Your task to perform on an android device: Show the shopping cart on target. Search for logitech g pro on target, select the first entry, and add it to the cart. Image 0: 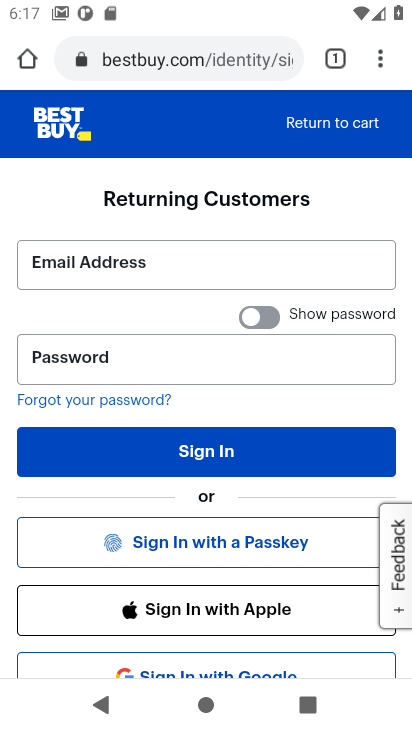
Step 0: click (150, 64)
Your task to perform on an android device: Show the shopping cart on target. Search for logitech g pro on target, select the first entry, and add it to the cart. Image 1: 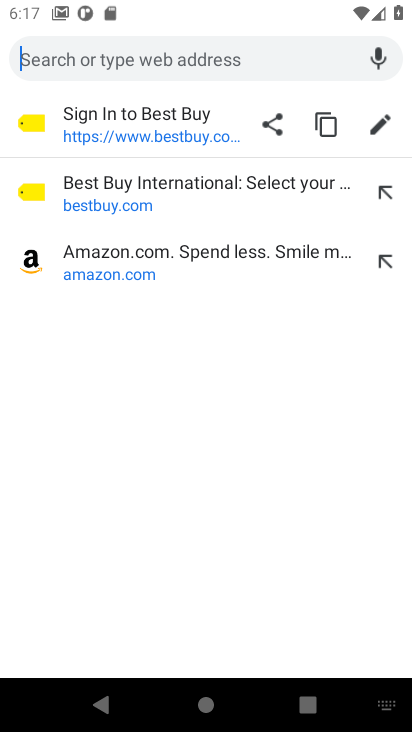
Step 1: type "target.com"
Your task to perform on an android device: Show the shopping cart on target. Search for logitech g pro on target, select the first entry, and add it to the cart. Image 2: 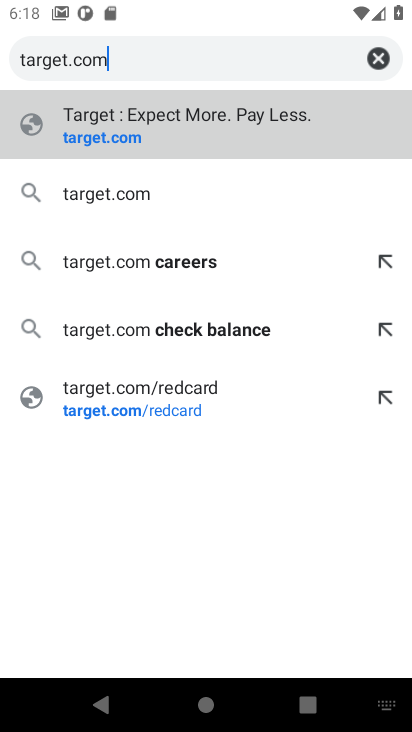
Step 2: click (93, 141)
Your task to perform on an android device: Show the shopping cart on target. Search for logitech g pro on target, select the first entry, and add it to the cart. Image 3: 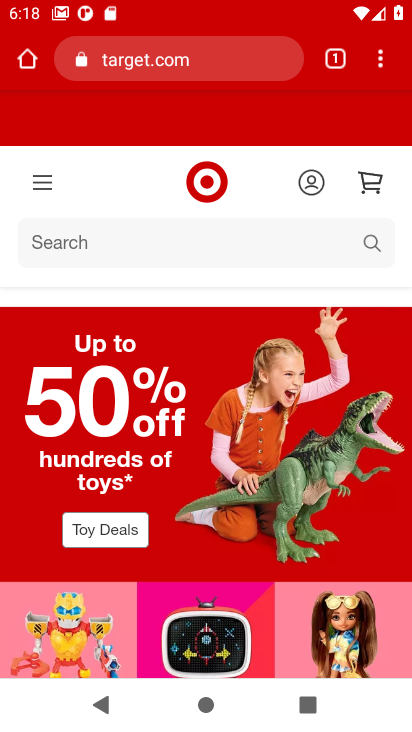
Step 3: click (368, 182)
Your task to perform on an android device: Show the shopping cart on target. Search for logitech g pro on target, select the first entry, and add it to the cart. Image 4: 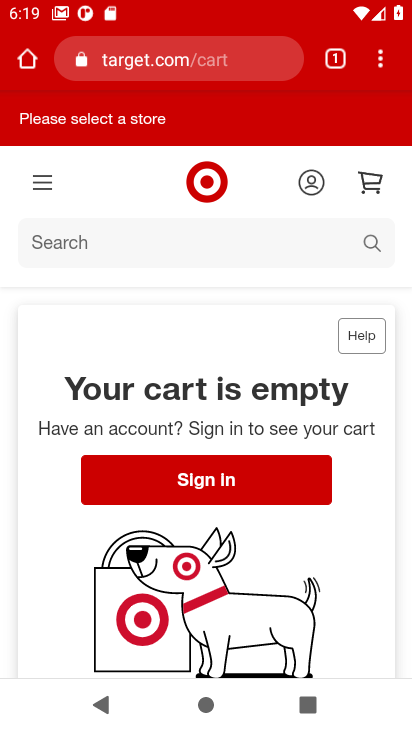
Step 4: click (79, 241)
Your task to perform on an android device: Show the shopping cart on target. Search for logitech g pro on target, select the first entry, and add it to the cart. Image 5: 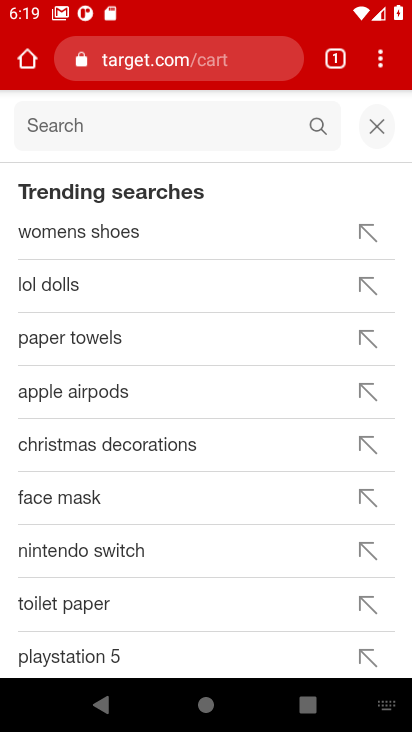
Step 5: type "logitech g pro"
Your task to perform on an android device: Show the shopping cart on target. Search for logitech g pro on target, select the first entry, and add it to the cart. Image 6: 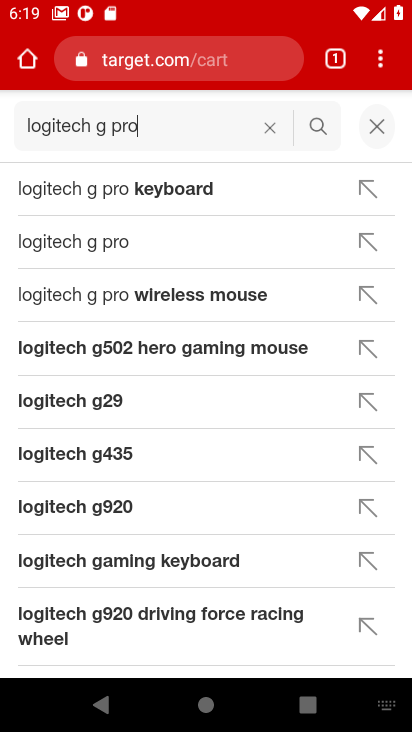
Step 6: click (102, 247)
Your task to perform on an android device: Show the shopping cart on target. Search for logitech g pro on target, select the first entry, and add it to the cart. Image 7: 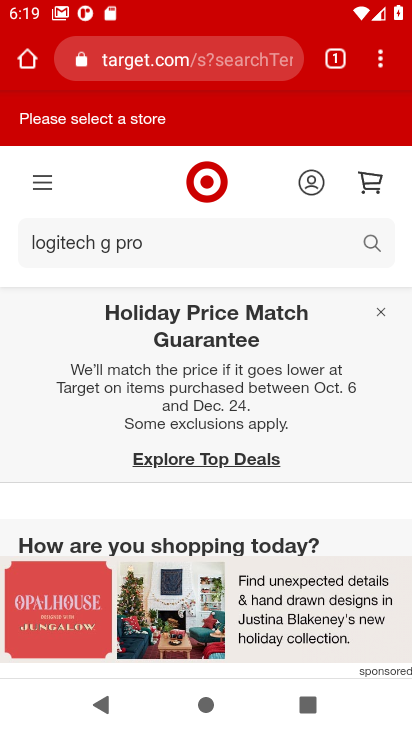
Step 7: task complete